Your task to perform on an android device: Go to privacy settings Image 0: 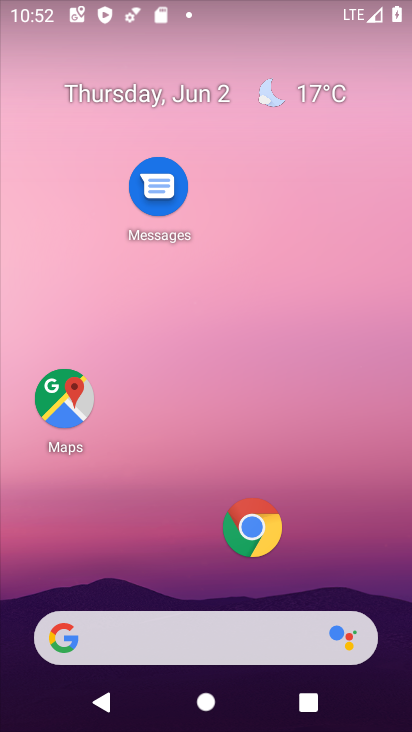
Step 0: press home button
Your task to perform on an android device: Go to privacy settings Image 1: 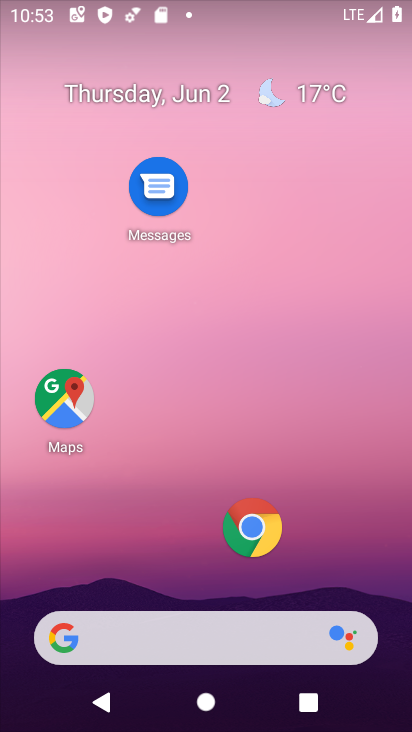
Step 1: drag from (205, 582) to (217, 106)
Your task to perform on an android device: Go to privacy settings Image 2: 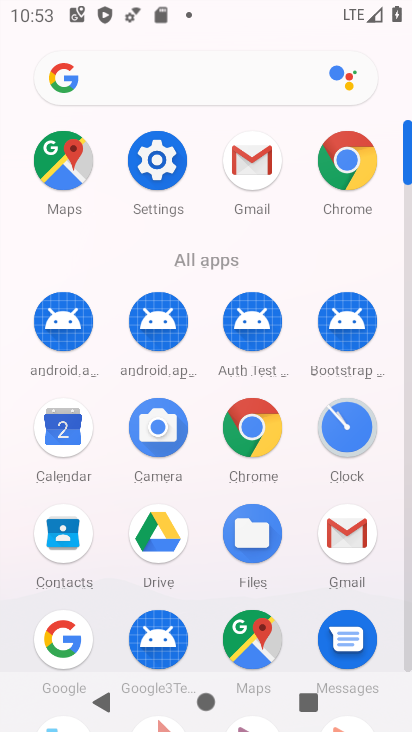
Step 2: click (154, 161)
Your task to perform on an android device: Go to privacy settings Image 3: 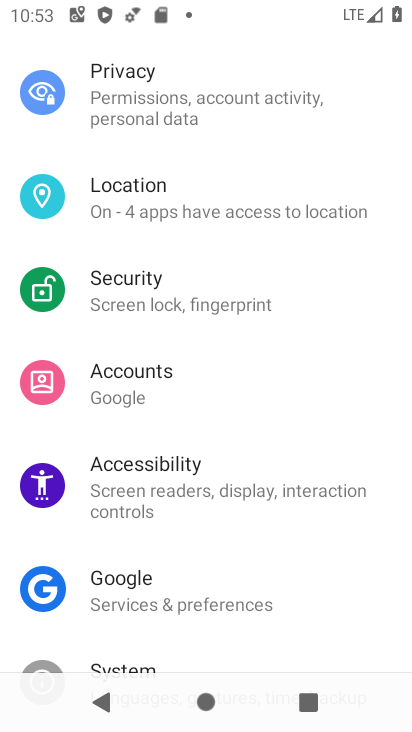
Step 3: click (173, 109)
Your task to perform on an android device: Go to privacy settings Image 4: 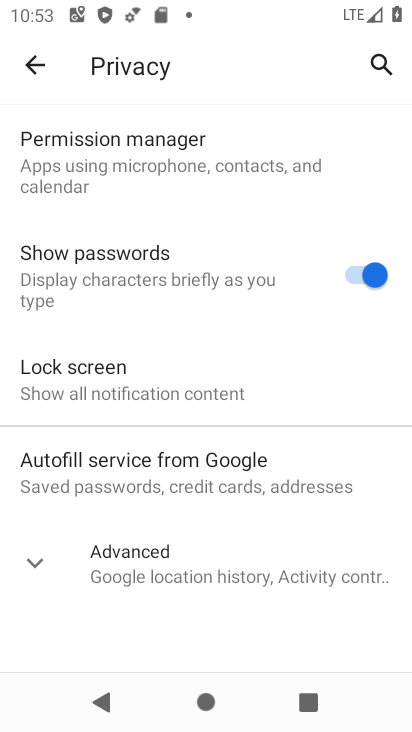
Step 4: click (31, 558)
Your task to perform on an android device: Go to privacy settings Image 5: 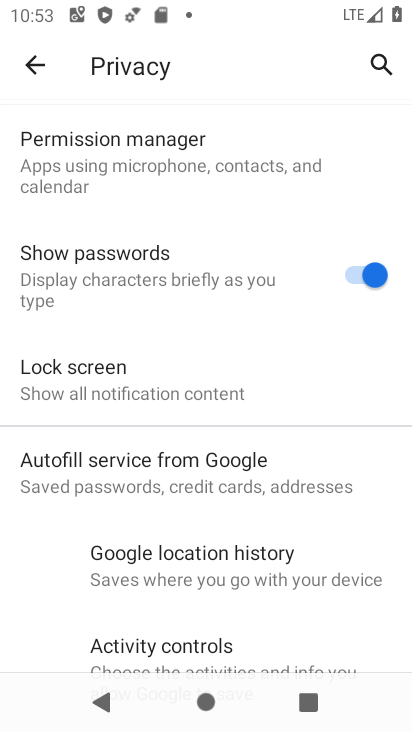
Step 5: task complete